Your task to perform on an android device: Do I have any events this weekend? Image 0: 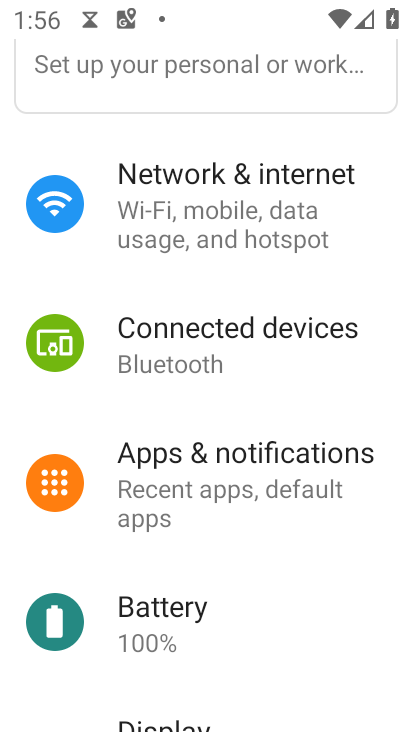
Step 0: press home button
Your task to perform on an android device: Do I have any events this weekend? Image 1: 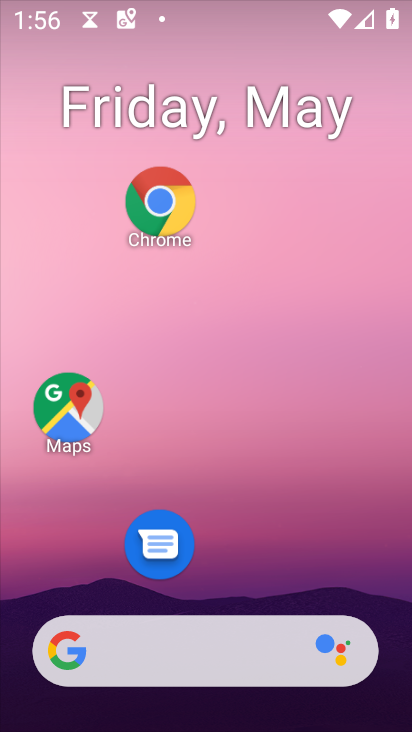
Step 1: drag from (306, 514) to (290, 184)
Your task to perform on an android device: Do I have any events this weekend? Image 2: 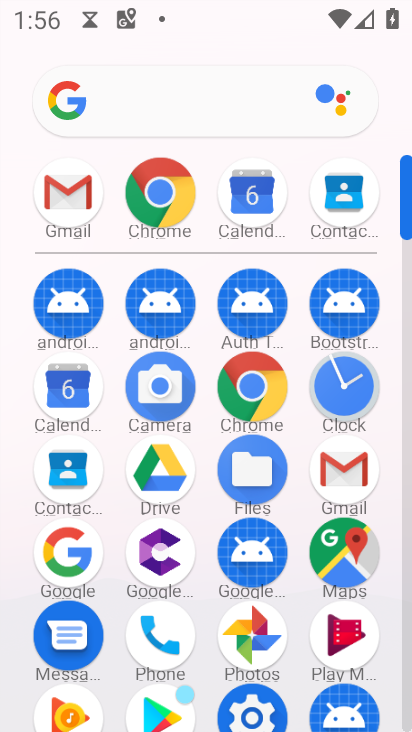
Step 2: click (87, 391)
Your task to perform on an android device: Do I have any events this weekend? Image 3: 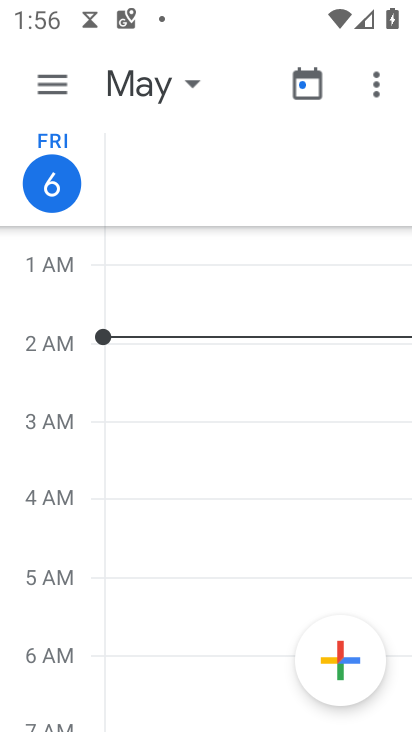
Step 3: drag from (177, 405) to (224, 142)
Your task to perform on an android device: Do I have any events this weekend? Image 4: 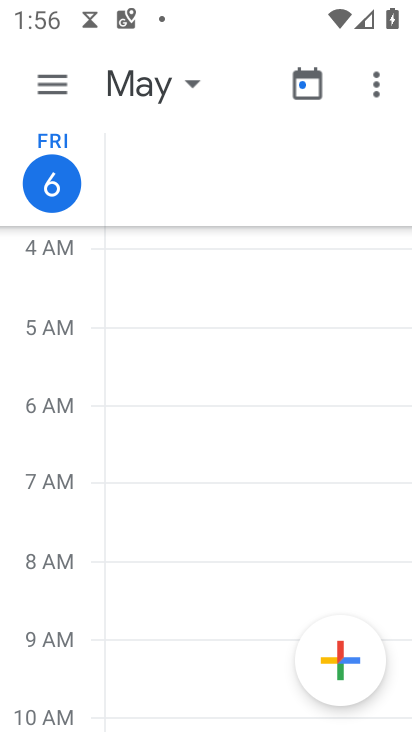
Step 4: drag from (249, 545) to (274, 115)
Your task to perform on an android device: Do I have any events this weekend? Image 5: 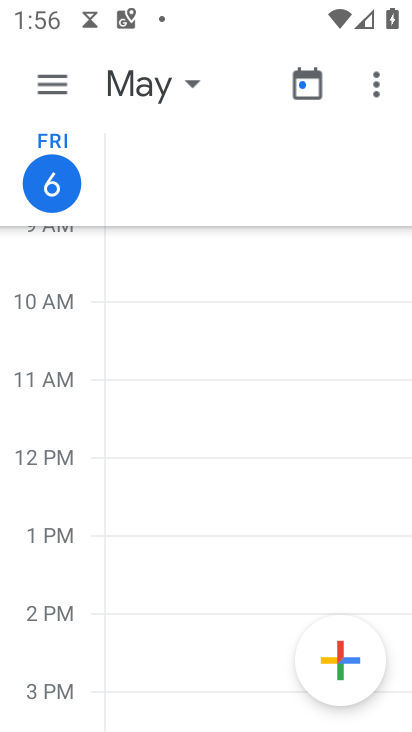
Step 5: click (187, 94)
Your task to perform on an android device: Do I have any events this weekend? Image 6: 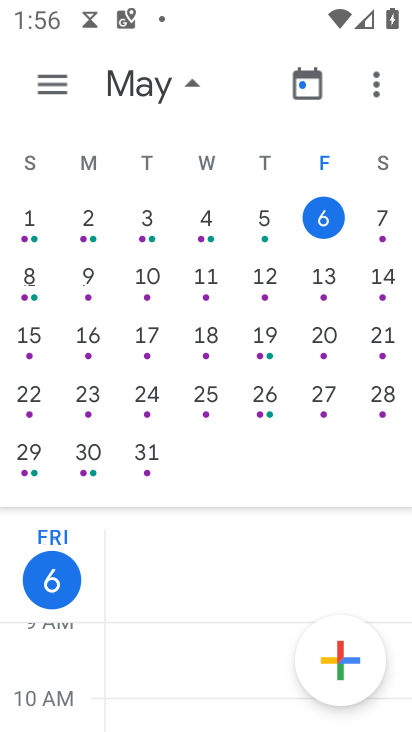
Step 6: click (178, 86)
Your task to perform on an android device: Do I have any events this weekend? Image 7: 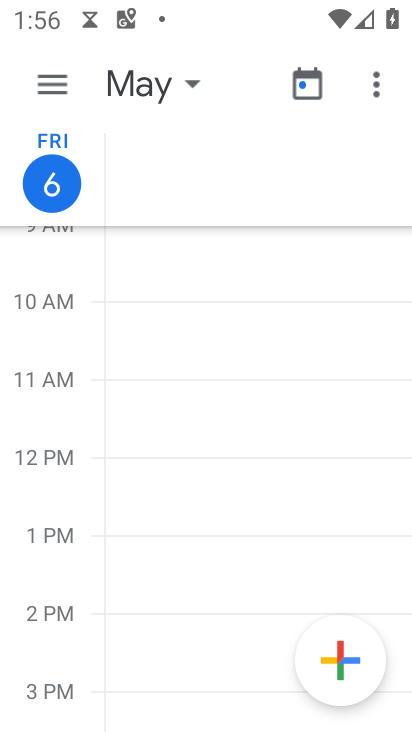
Step 7: task complete